Your task to perform on an android device: delete a single message in the gmail app Image 0: 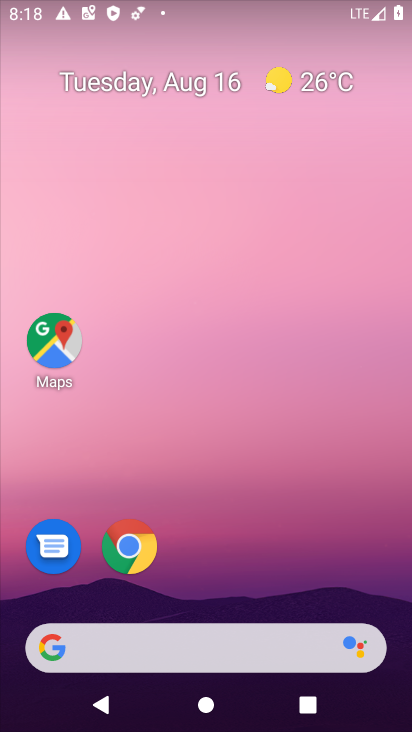
Step 0: drag from (202, 521) to (220, 0)
Your task to perform on an android device: delete a single message in the gmail app Image 1: 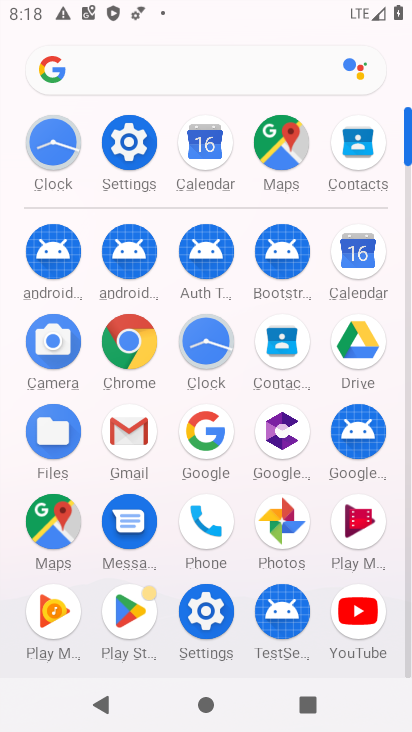
Step 1: click (126, 427)
Your task to perform on an android device: delete a single message in the gmail app Image 2: 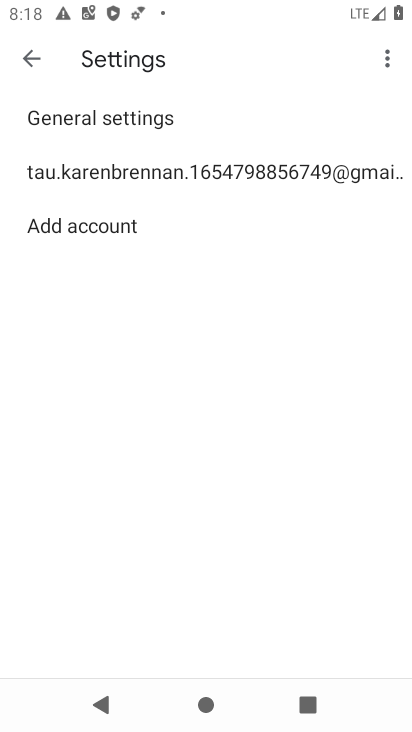
Step 2: click (26, 52)
Your task to perform on an android device: delete a single message in the gmail app Image 3: 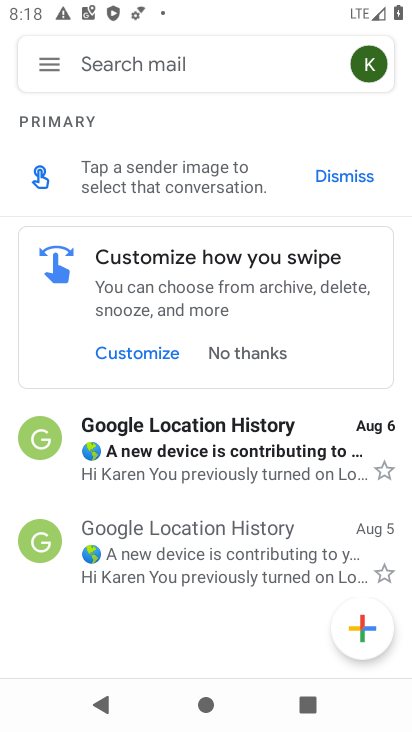
Step 3: click (167, 550)
Your task to perform on an android device: delete a single message in the gmail app Image 4: 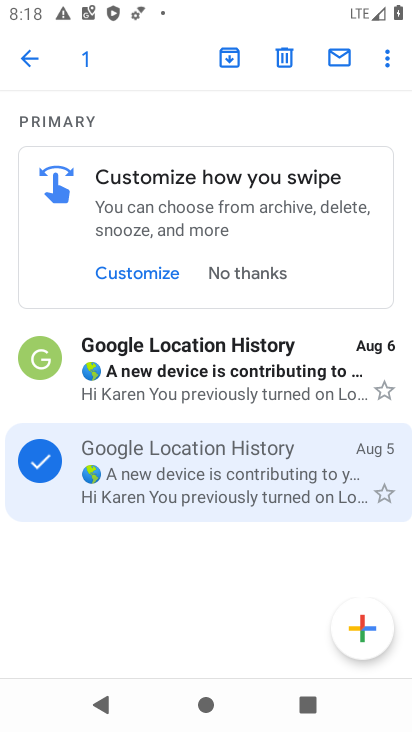
Step 4: click (281, 61)
Your task to perform on an android device: delete a single message in the gmail app Image 5: 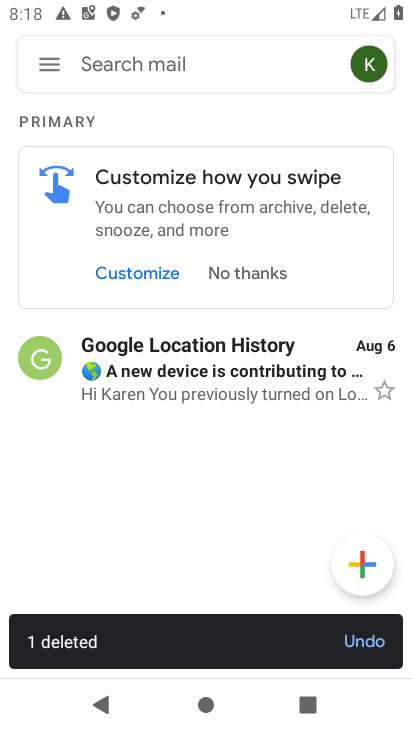
Step 5: task complete